Your task to perform on an android device: toggle data saver in the chrome app Image 0: 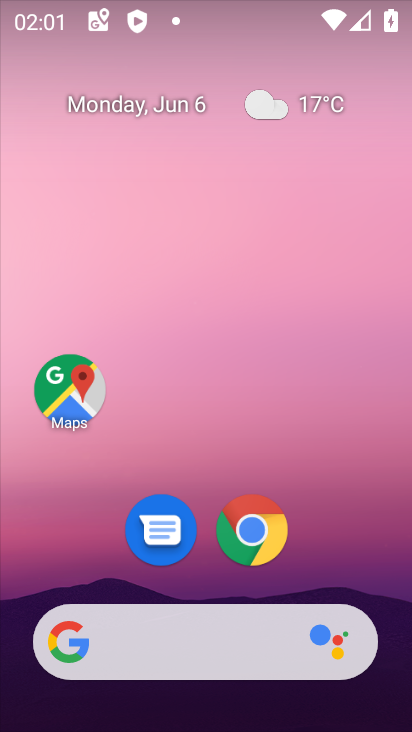
Step 0: click (248, 509)
Your task to perform on an android device: toggle data saver in the chrome app Image 1: 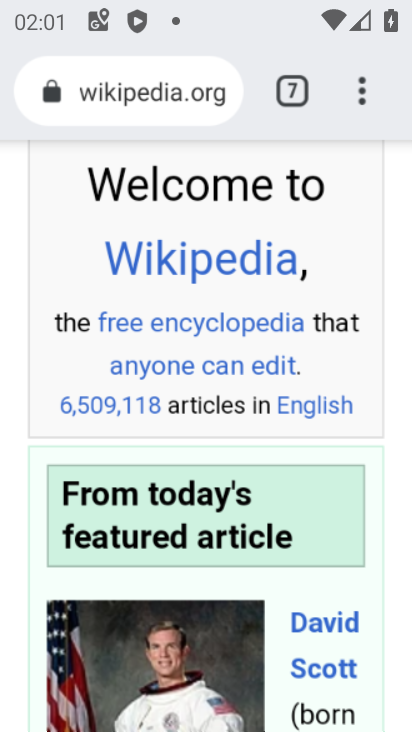
Step 1: click (372, 75)
Your task to perform on an android device: toggle data saver in the chrome app Image 2: 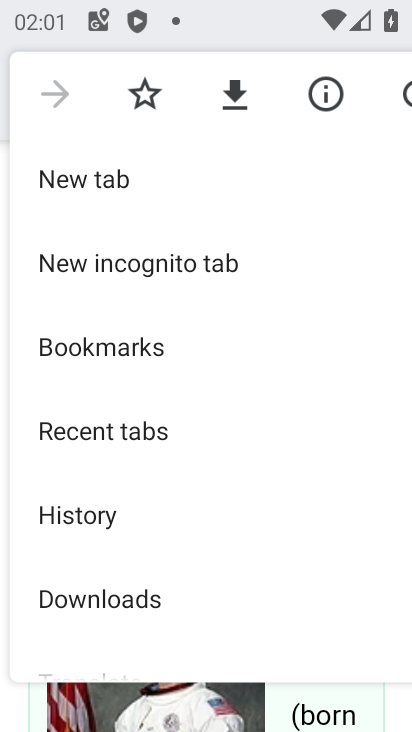
Step 2: drag from (151, 533) to (150, 168)
Your task to perform on an android device: toggle data saver in the chrome app Image 3: 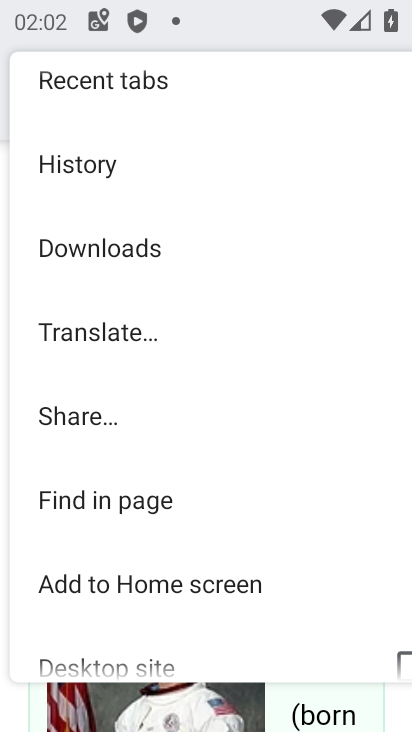
Step 3: drag from (164, 527) to (163, 334)
Your task to perform on an android device: toggle data saver in the chrome app Image 4: 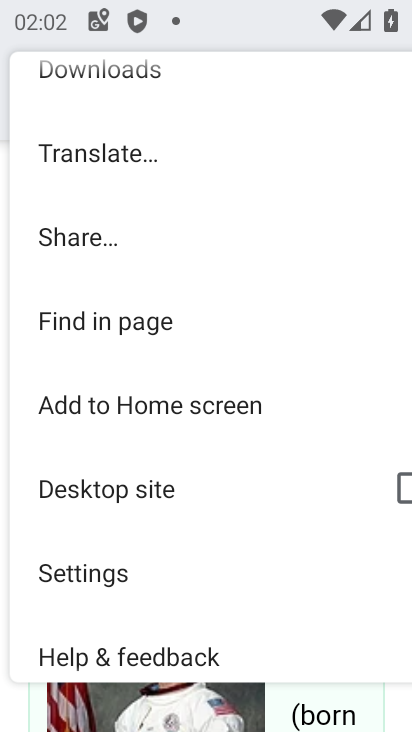
Step 4: click (108, 567)
Your task to perform on an android device: toggle data saver in the chrome app Image 5: 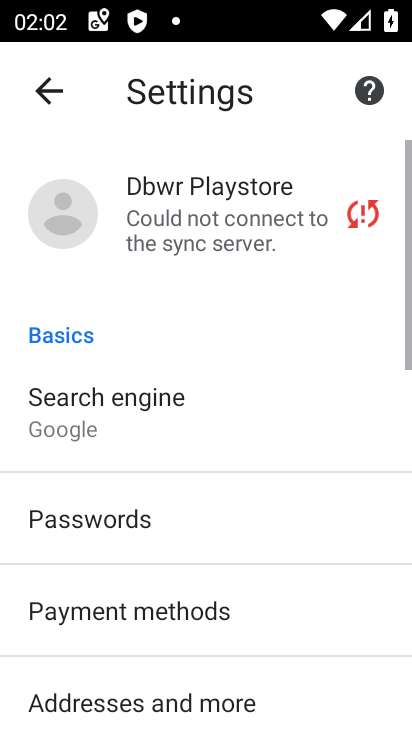
Step 5: drag from (215, 647) to (231, 260)
Your task to perform on an android device: toggle data saver in the chrome app Image 6: 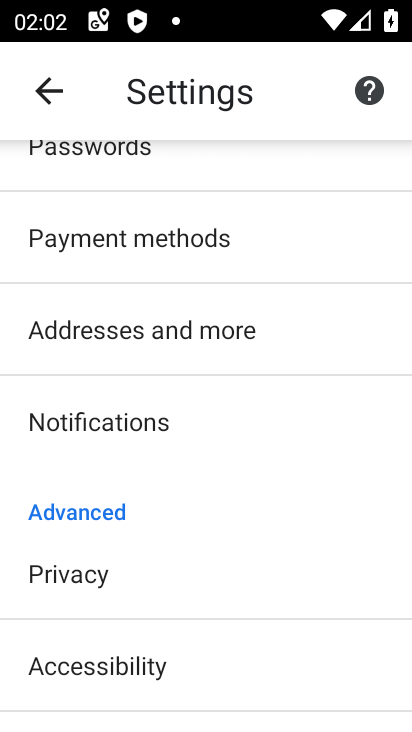
Step 6: drag from (94, 644) to (122, 242)
Your task to perform on an android device: toggle data saver in the chrome app Image 7: 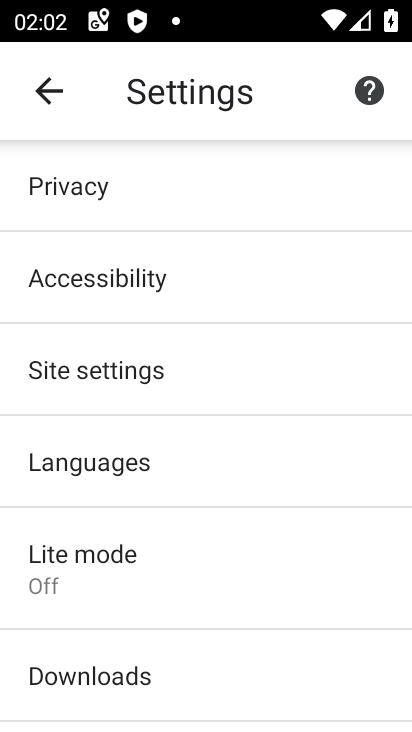
Step 7: click (117, 556)
Your task to perform on an android device: toggle data saver in the chrome app Image 8: 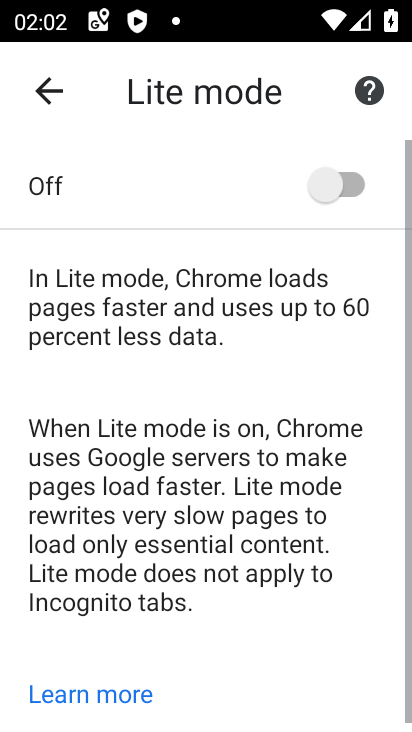
Step 8: click (347, 178)
Your task to perform on an android device: toggle data saver in the chrome app Image 9: 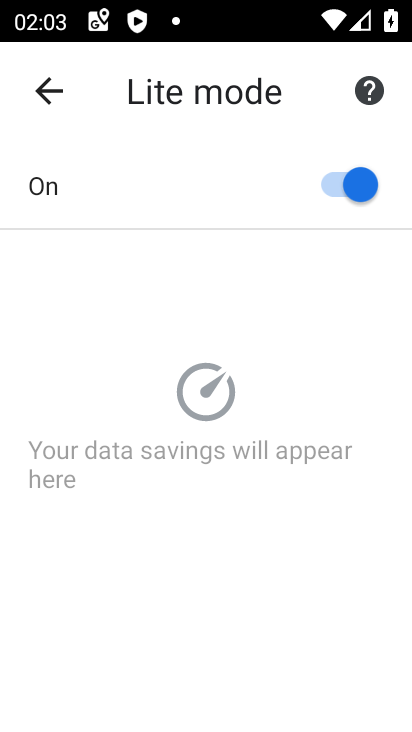
Step 9: task complete